Your task to perform on an android device: Open CNN.com Image 0: 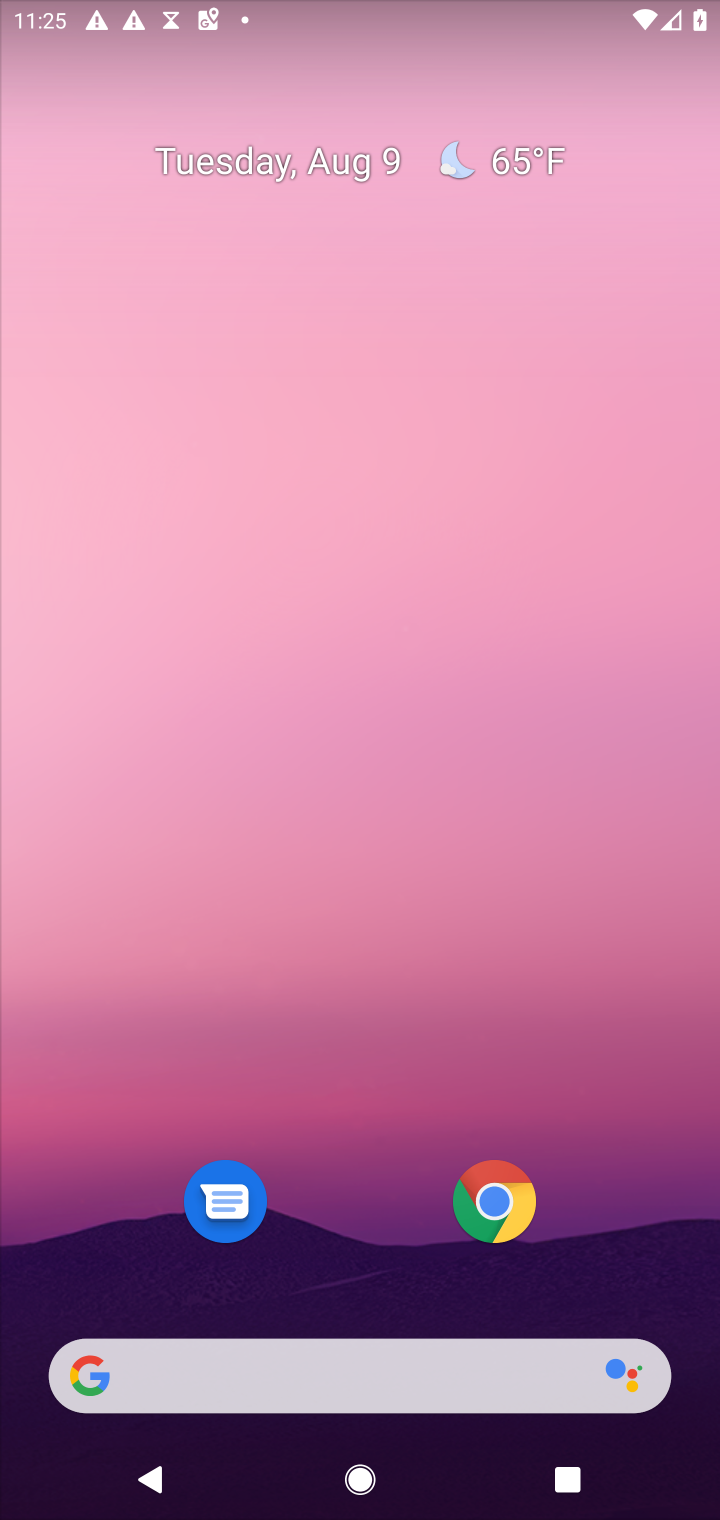
Step 0: press home button
Your task to perform on an android device: Open CNN.com Image 1: 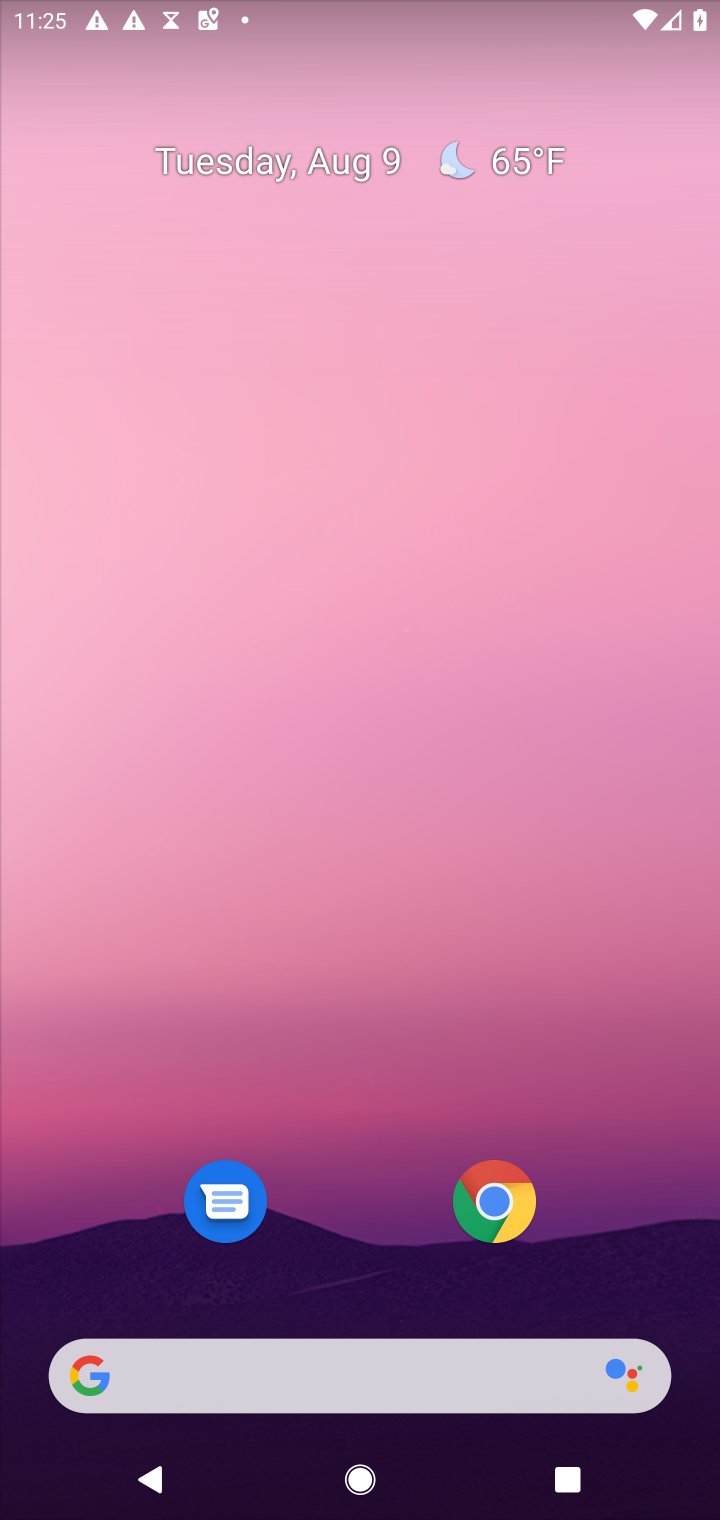
Step 1: drag from (392, 1128) to (370, 375)
Your task to perform on an android device: Open CNN.com Image 2: 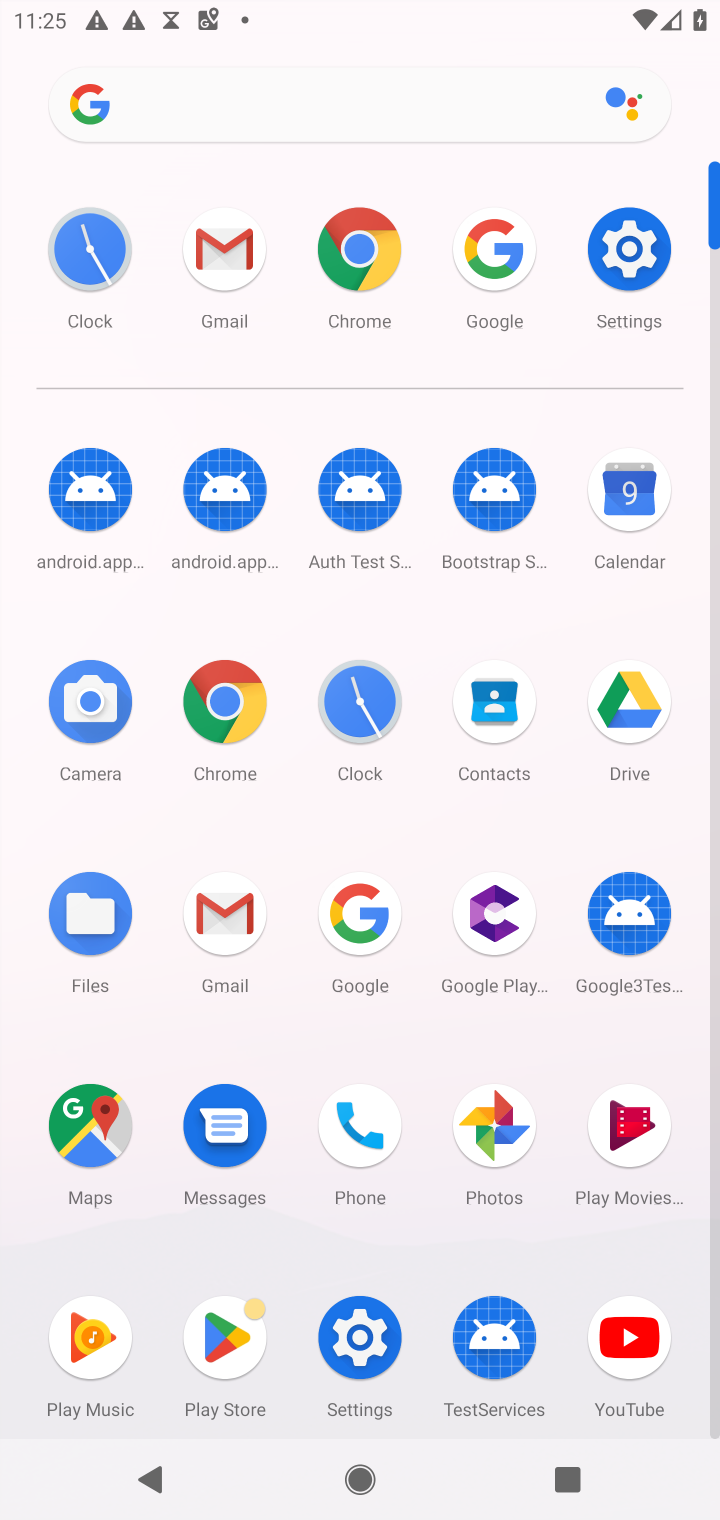
Step 2: click (354, 928)
Your task to perform on an android device: Open CNN.com Image 3: 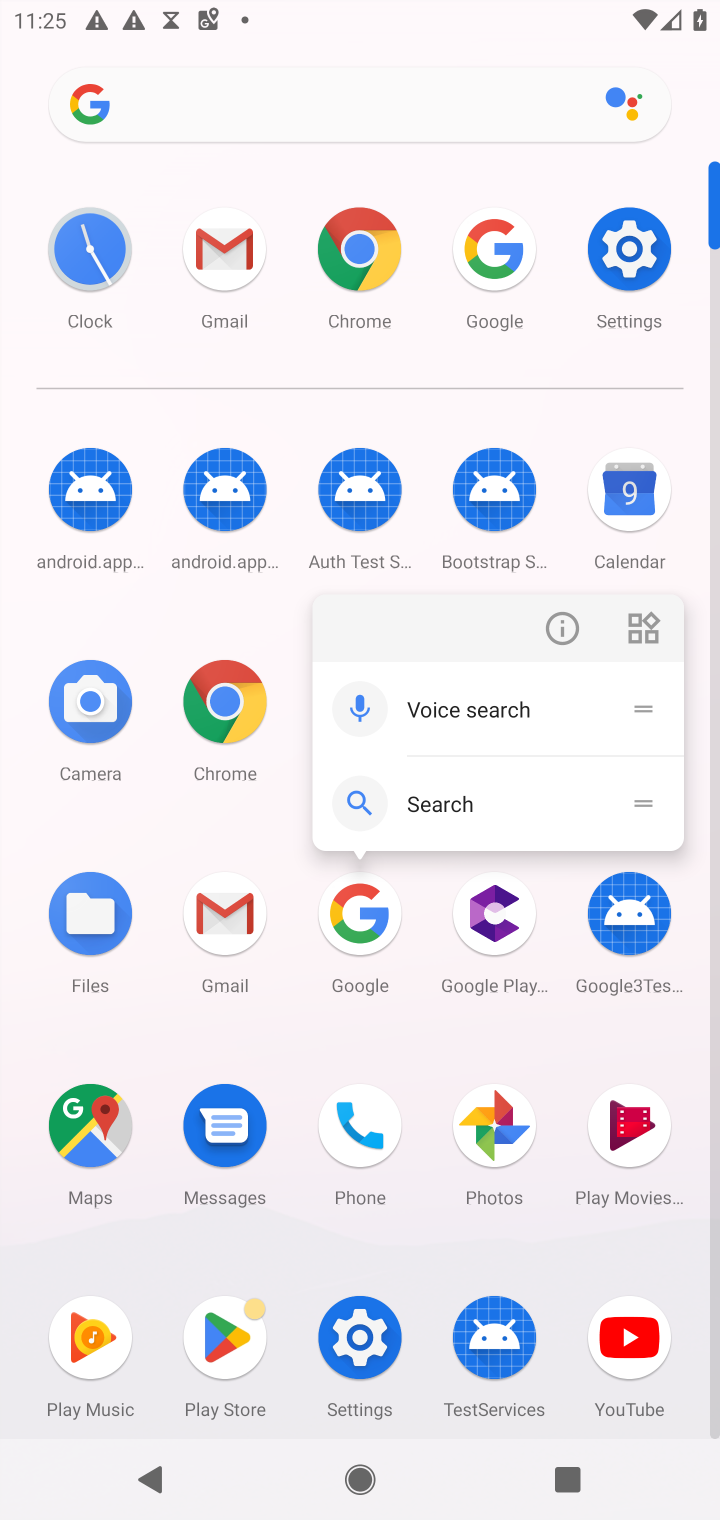
Step 3: click (354, 923)
Your task to perform on an android device: Open CNN.com Image 4: 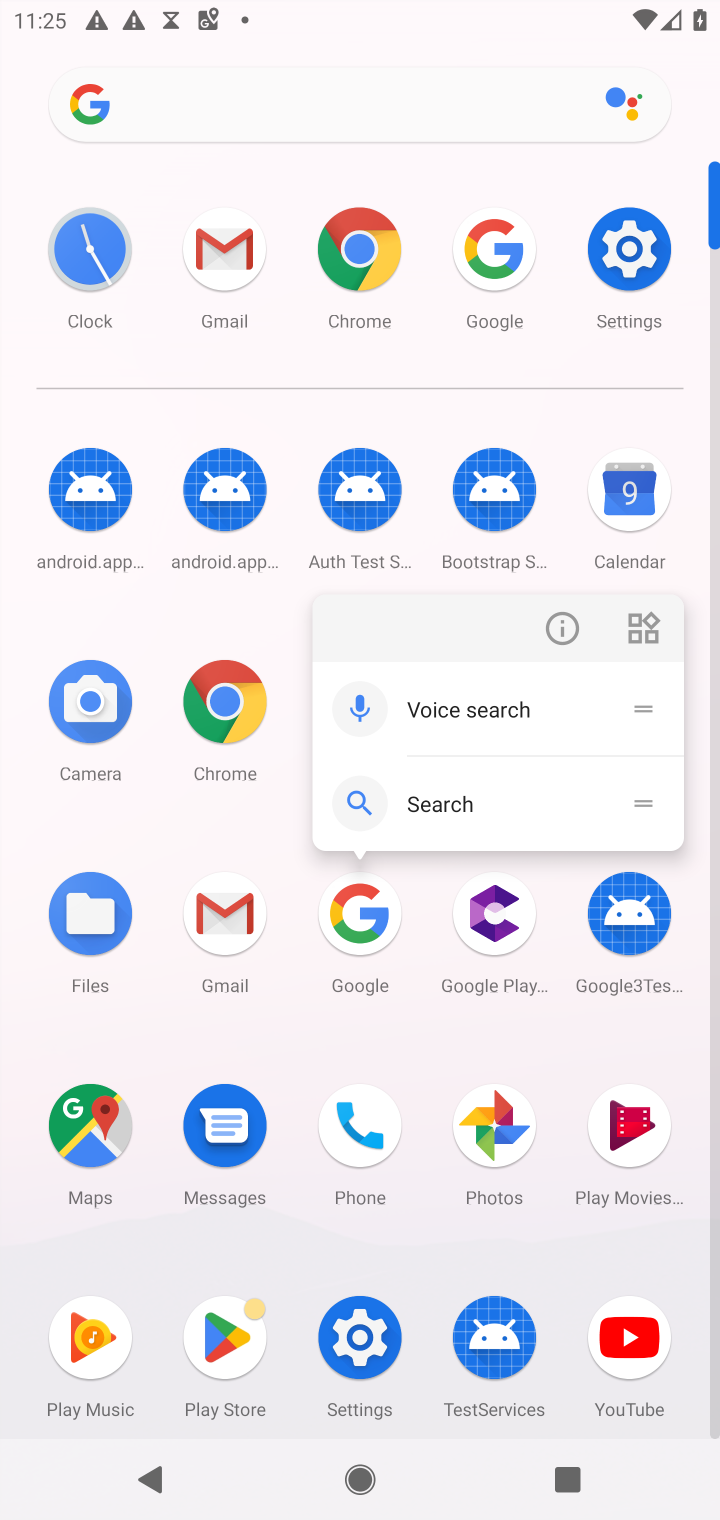
Step 4: click (355, 910)
Your task to perform on an android device: Open CNN.com Image 5: 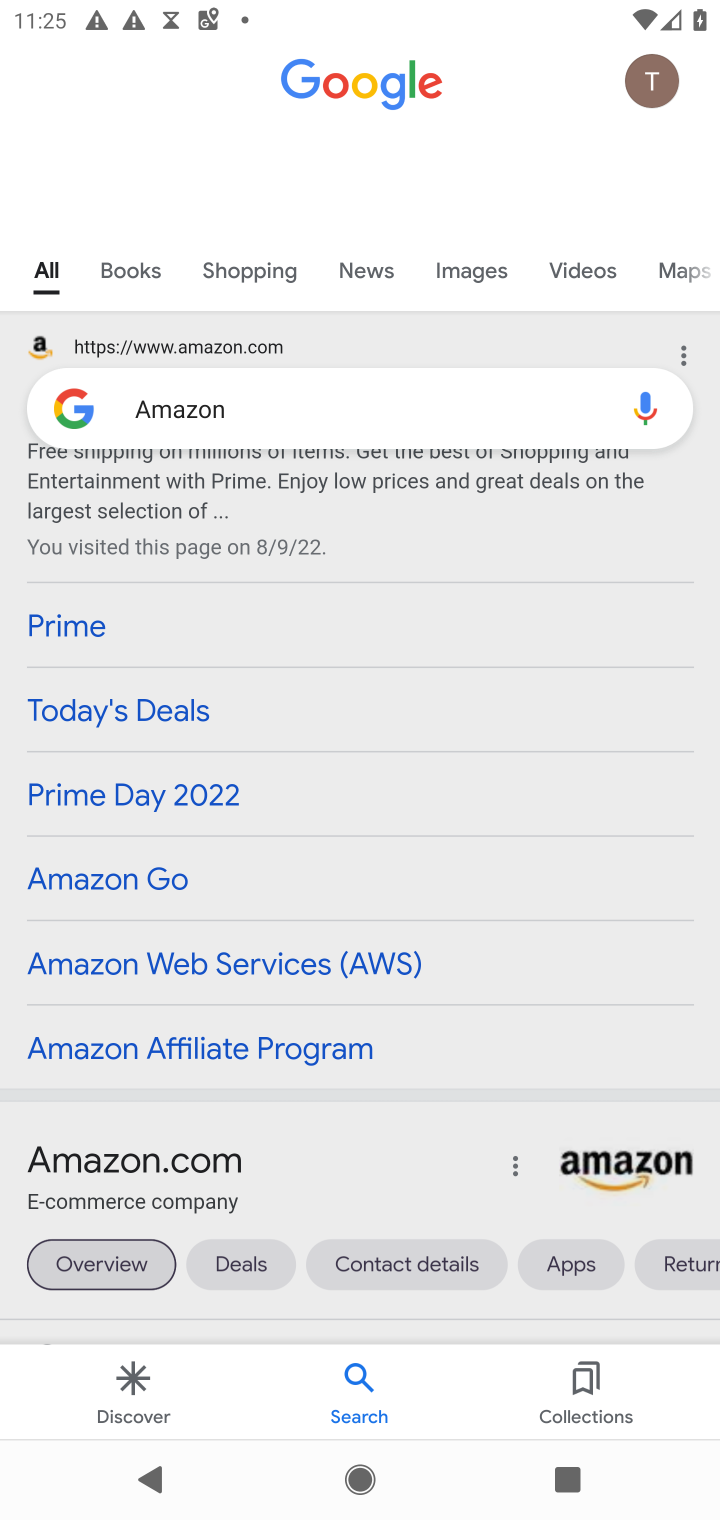
Step 5: click (378, 398)
Your task to perform on an android device: Open CNN.com Image 6: 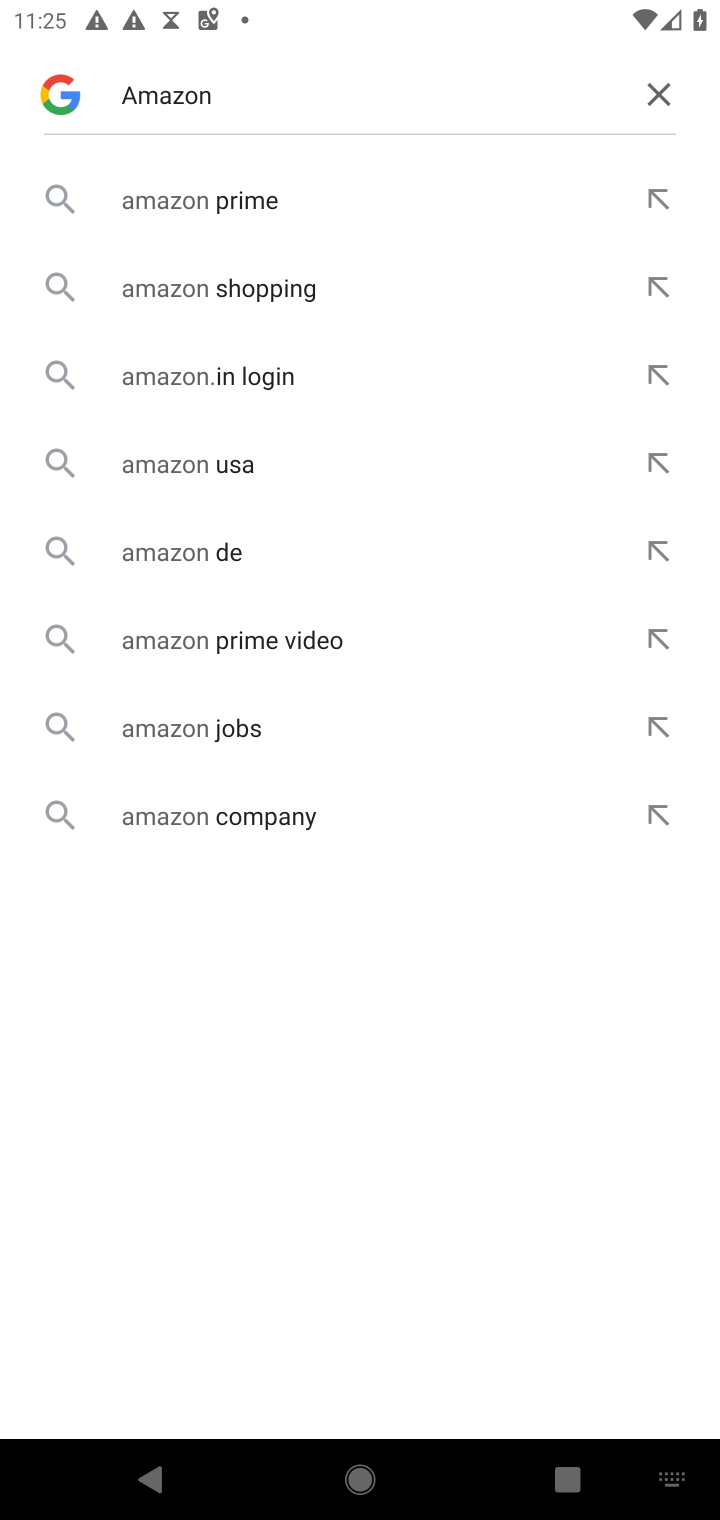
Step 6: click (651, 92)
Your task to perform on an android device: Open CNN.com Image 7: 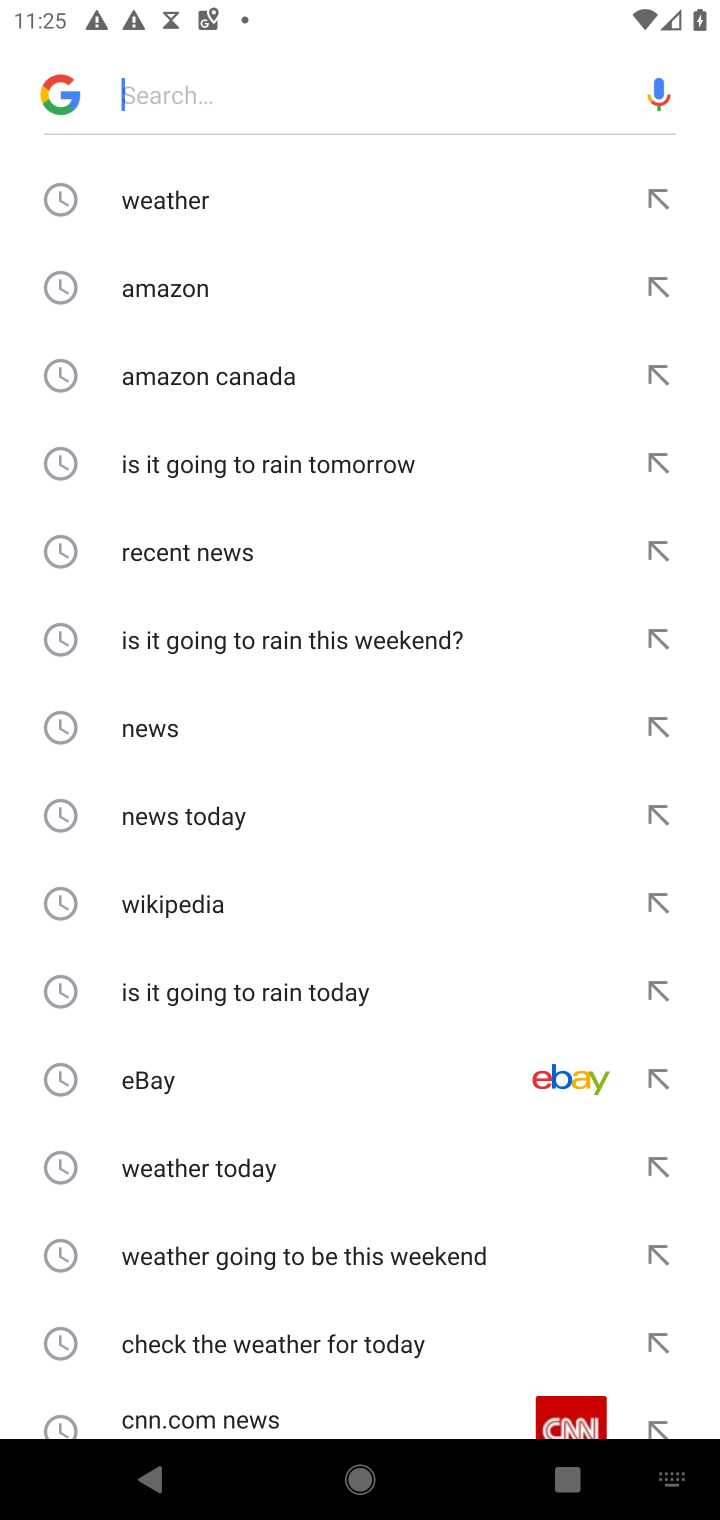
Step 7: type "CNN.com"
Your task to perform on an android device: Open CNN.com Image 8: 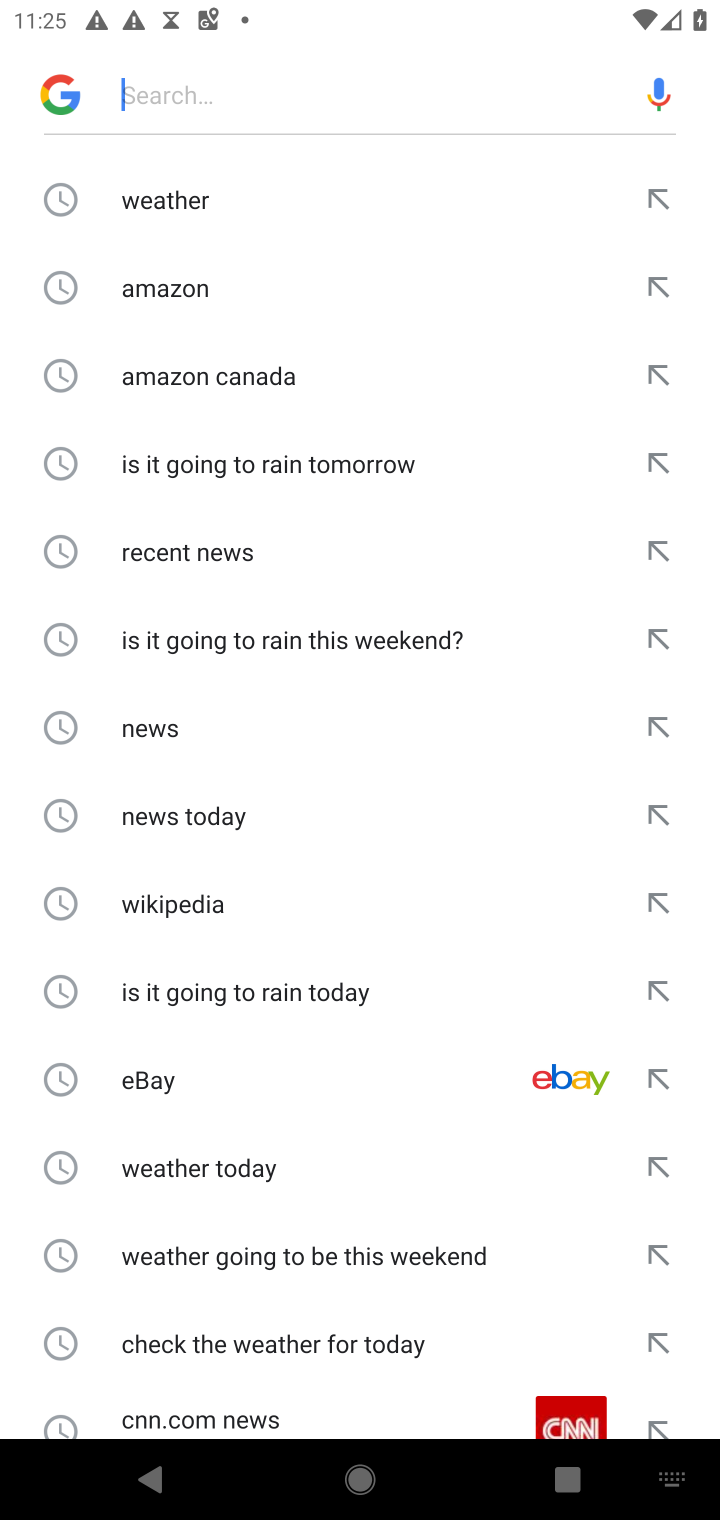
Step 8: click (178, 86)
Your task to perform on an android device: Open CNN.com Image 9: 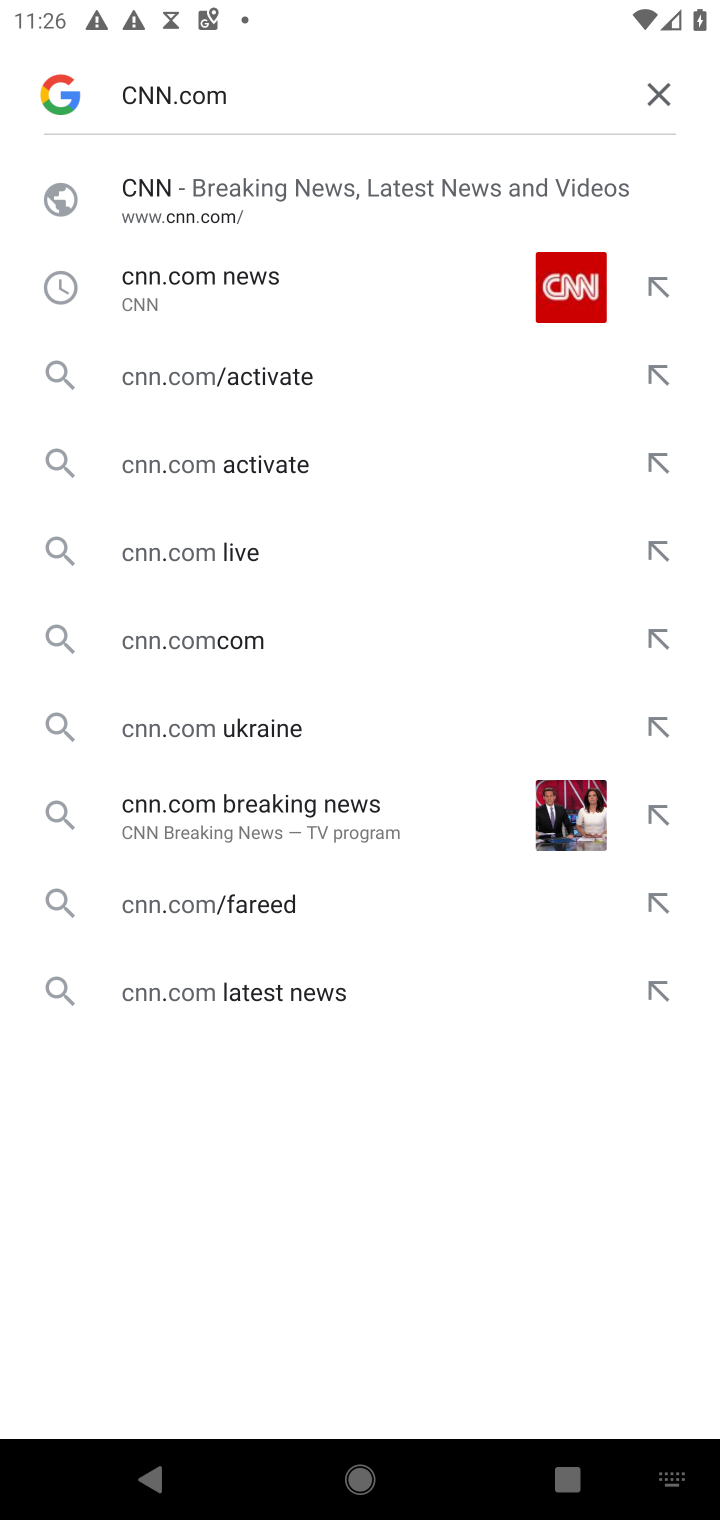
Step 9: press enter
Your task to perform on an android device: Open CNN.com Image 10: 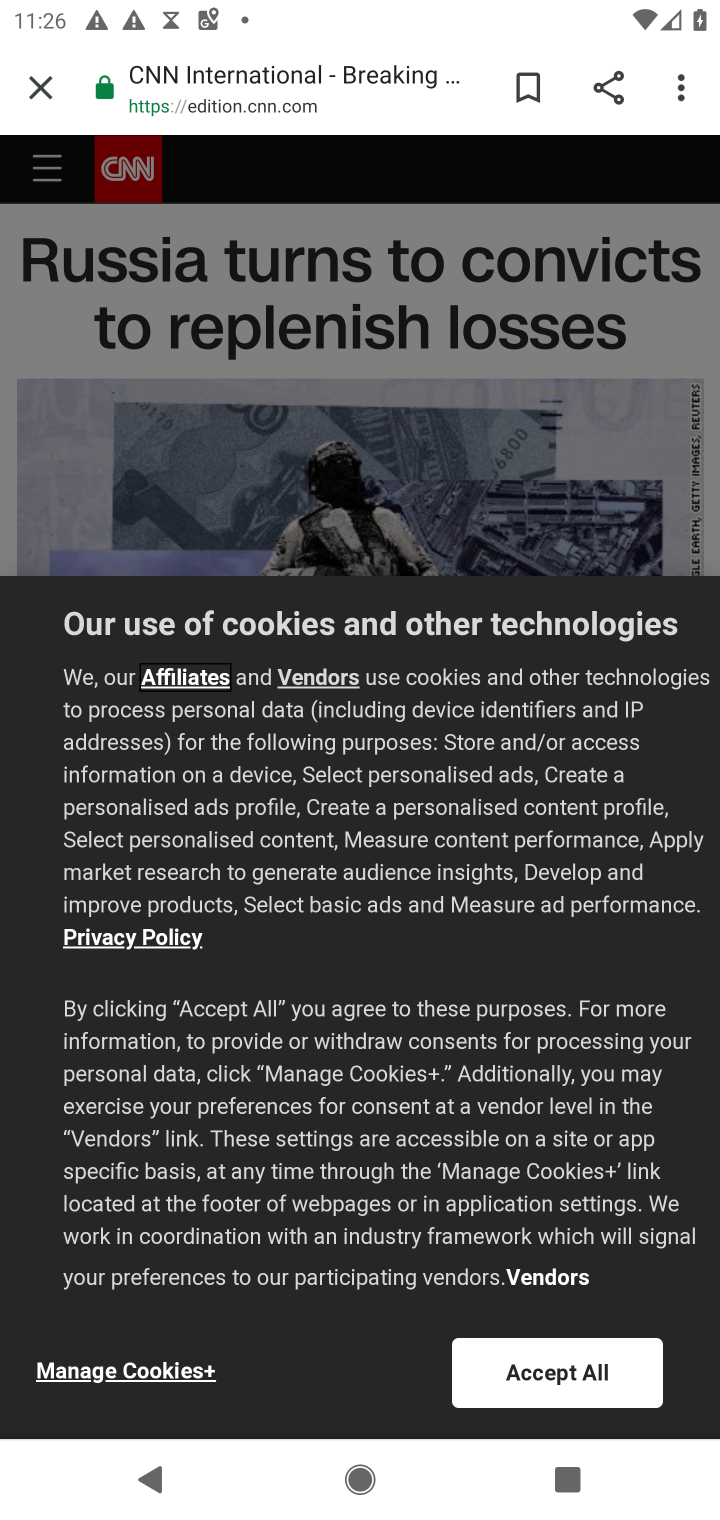
Step 10: click (536, 1372)
Your task to perform on an android device: Open CNN.com Image 11: 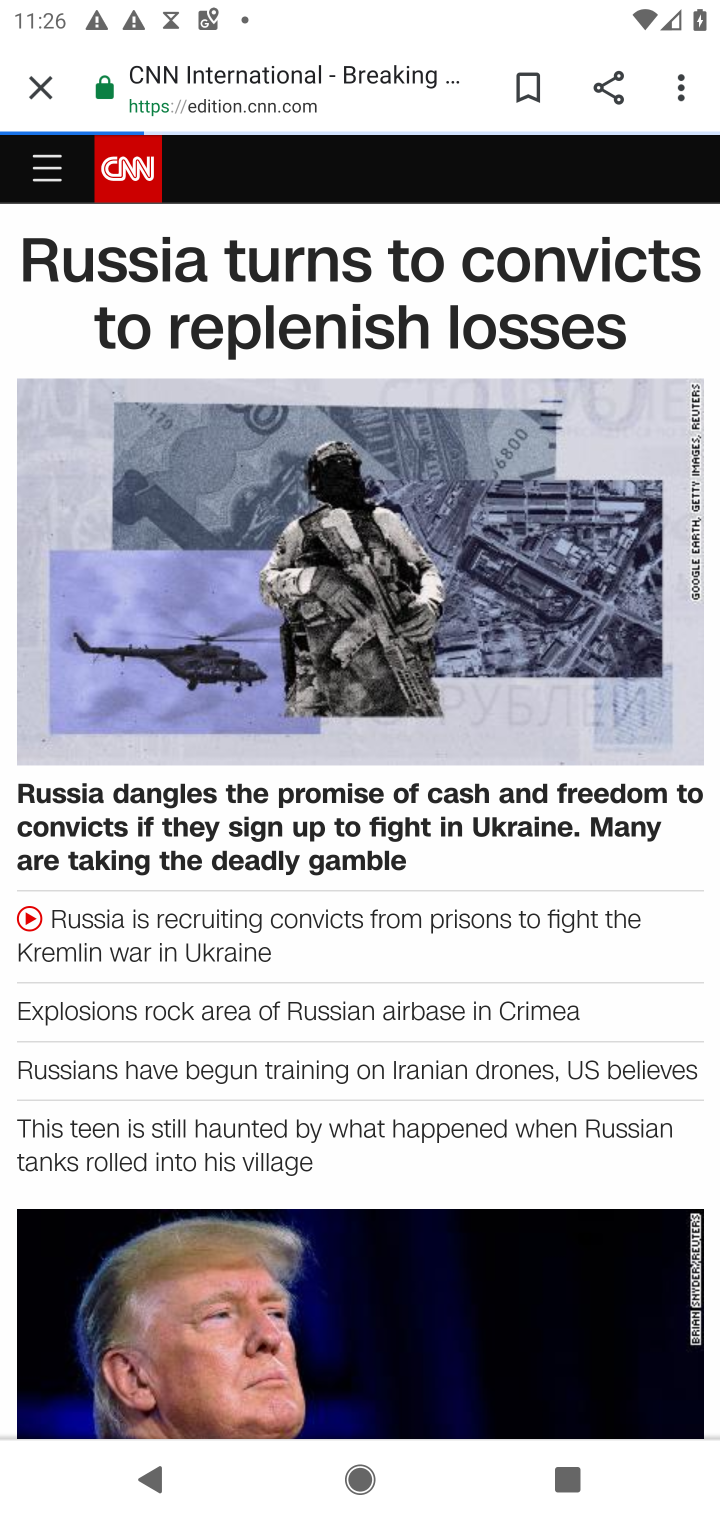
Step 11: task complete